Your task to perform on an android device: add a contact Image 0: 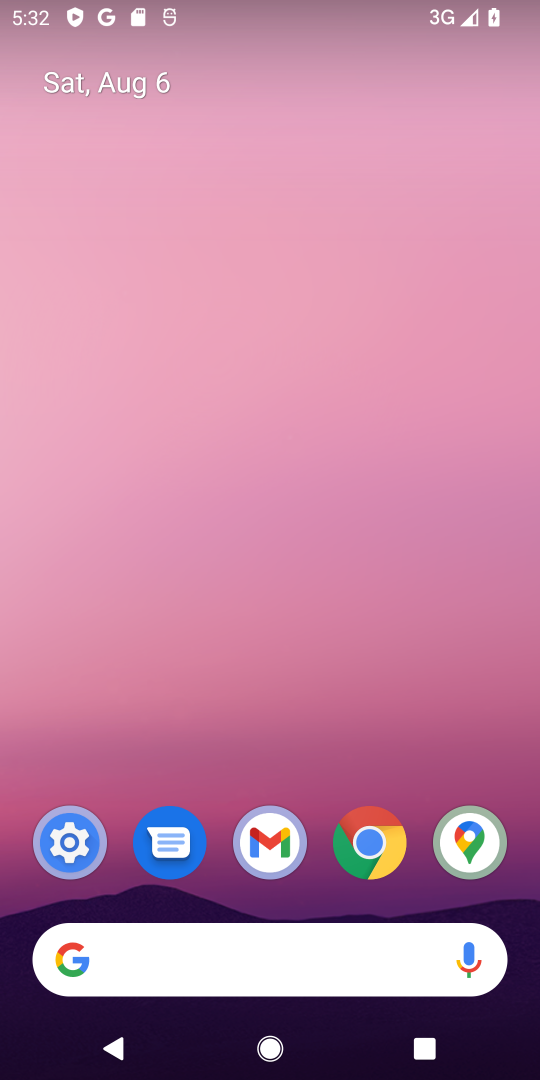
Step 0: drag from (522, 1025) to (463, 70)
Your task to perform on an android device: add a contact Image 1: 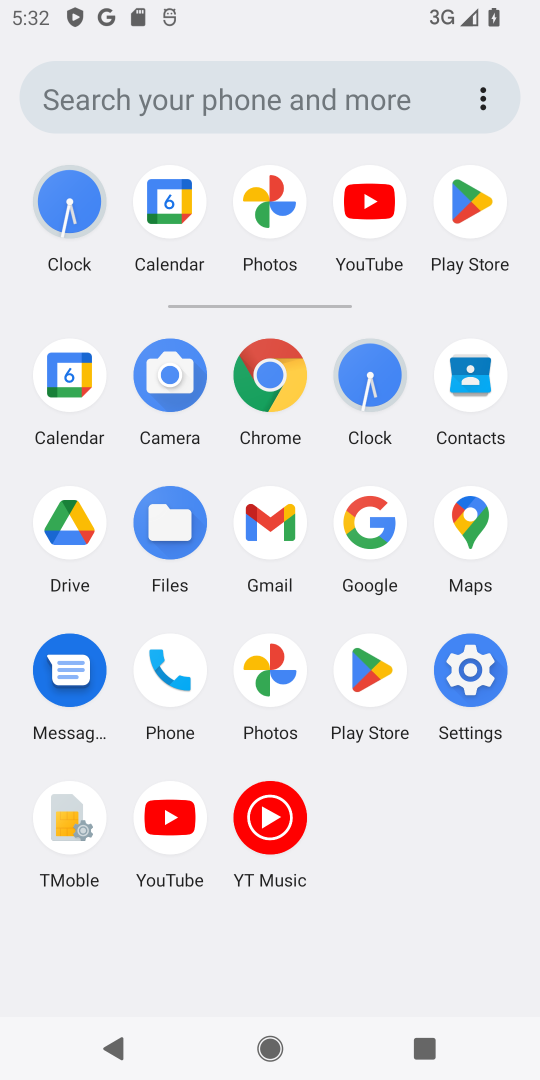
Step 1: click (465, 380)
Your task to perform on an android device: add a contact Image 2: 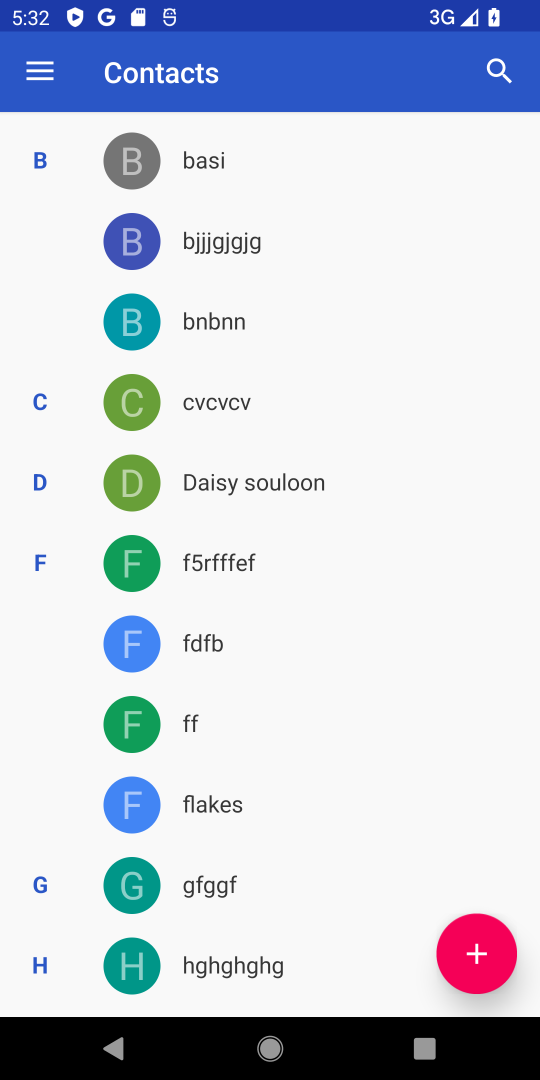
Step 2: click (461, 948)
Your task to perform on an android device: add a contact Image 3: 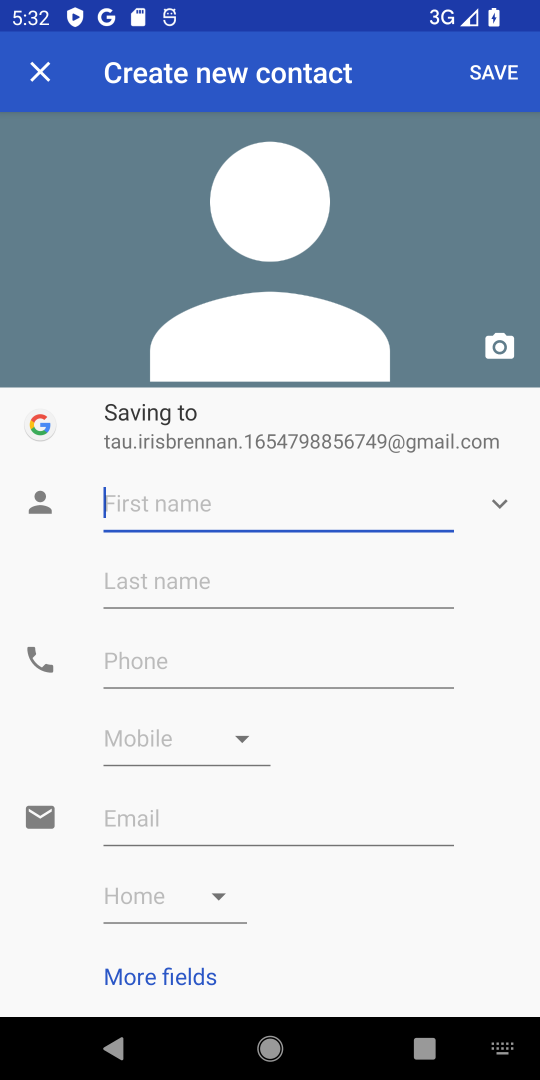
Step 3: type "tchfccghfcdc"
Your task to perform on an android device: add a contact Image 4: 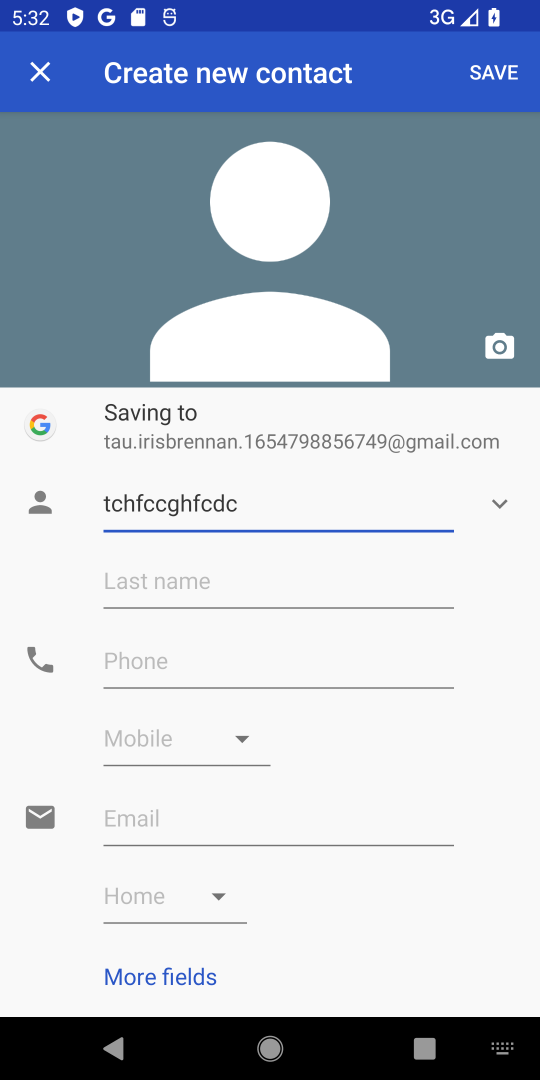
Step 4: click (208, 583)
Your task to perform on an android device: add a contact Image 5: 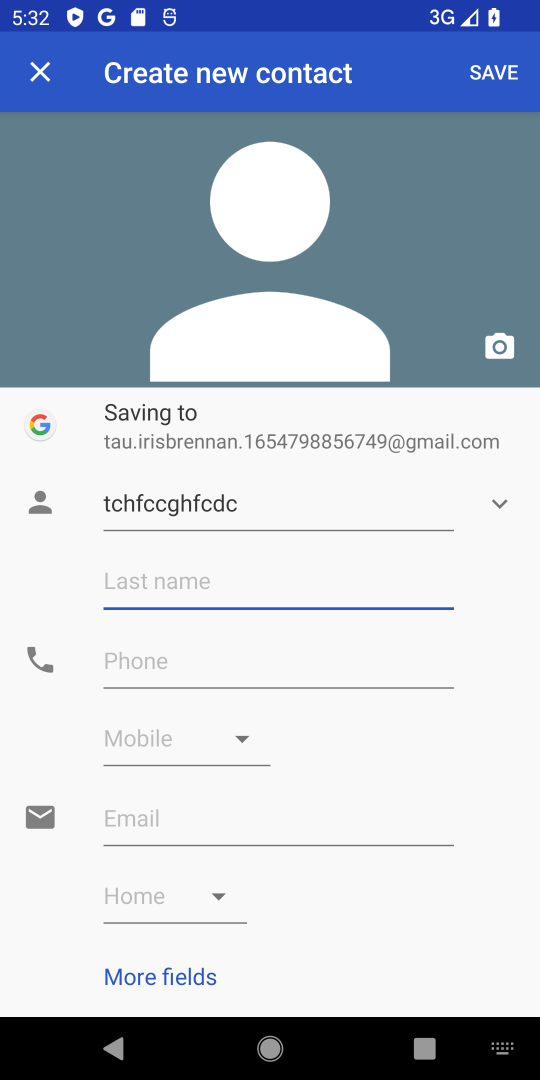
Step 5: type "frdxcfcrdxcf"
Your task to perform on an android device: add a contact Image 6: 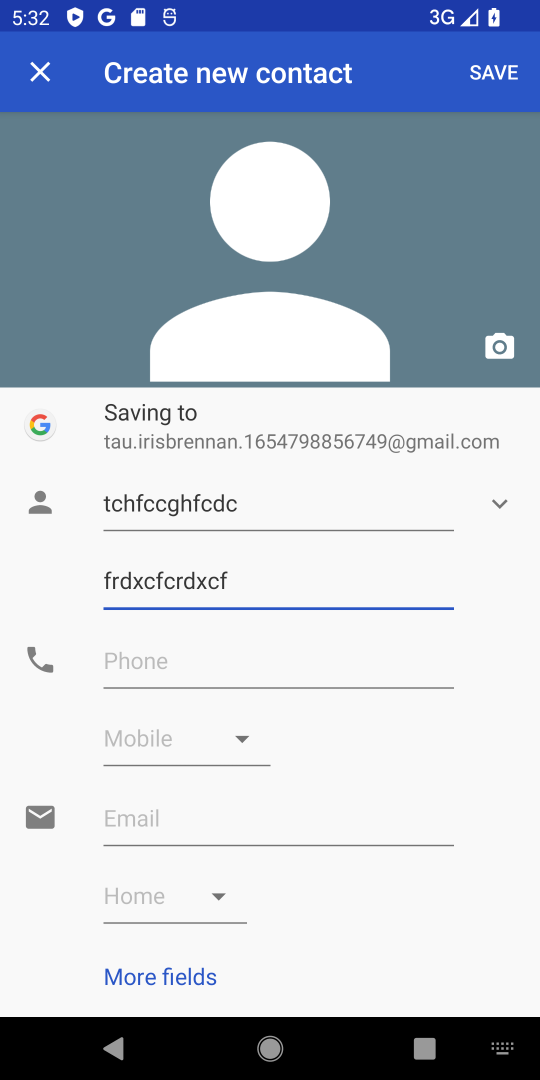
Step 6: click (220, 650)
Your task to perform on an android device: add a contact Image 7: 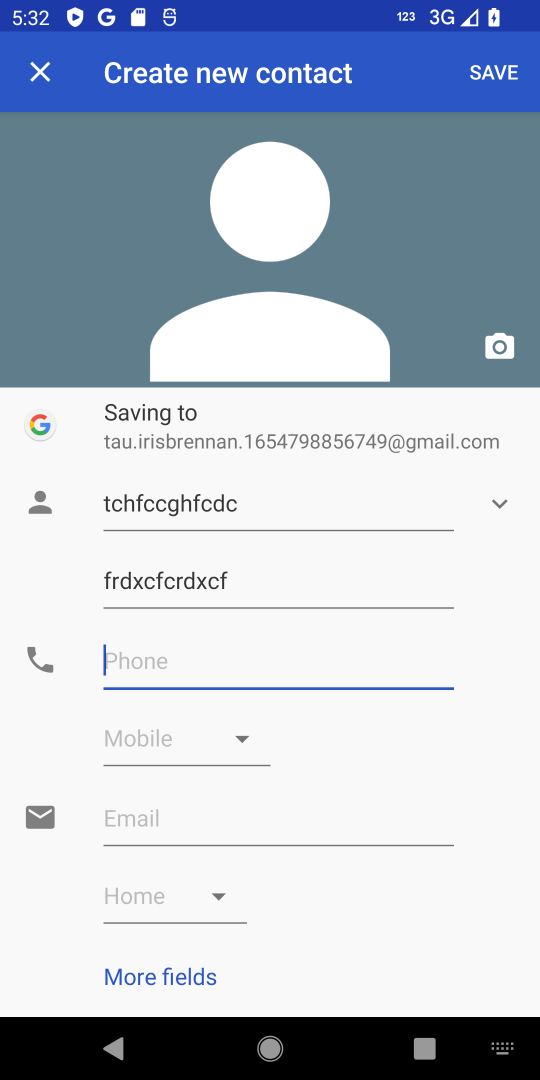
Step 7: type "45455445545"
Your task to perform on an android device: add a contact Image 8: 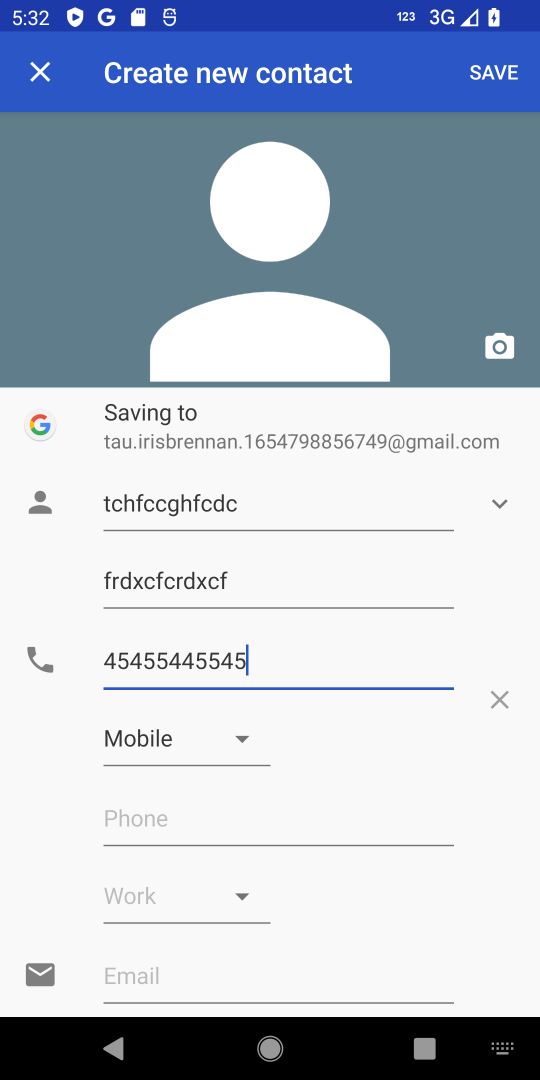
Step 8: click (478, 69)
Your task to perform on an android device: add a contact Image 9: 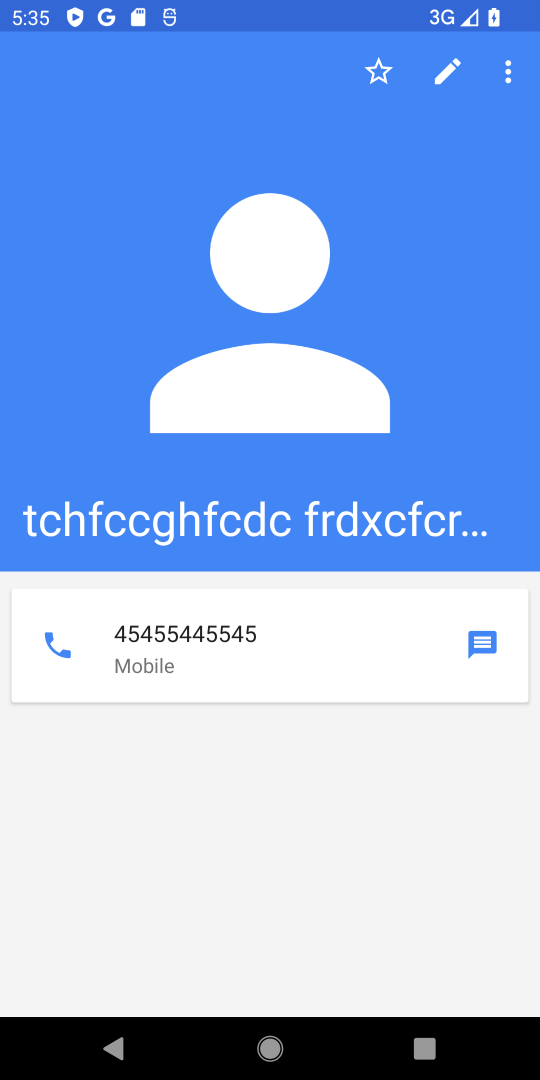
Step 9: task complete